Your task to perform on an android device: check storage Image 0: 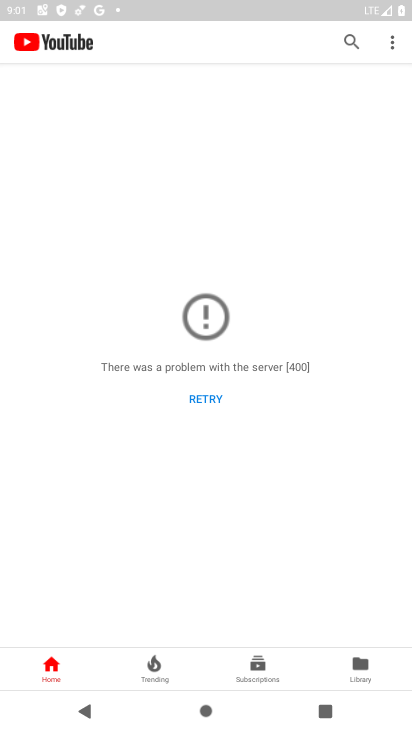
Step 0: press home button
Your task to perform on an android device: check storage Image 1: 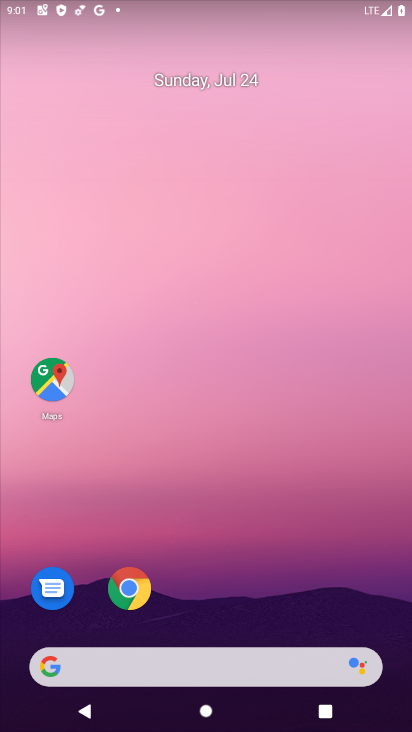
Step 1: drag from (227, 687) to (233, 242)
Your task to perform on an android device: check storage Image 2: 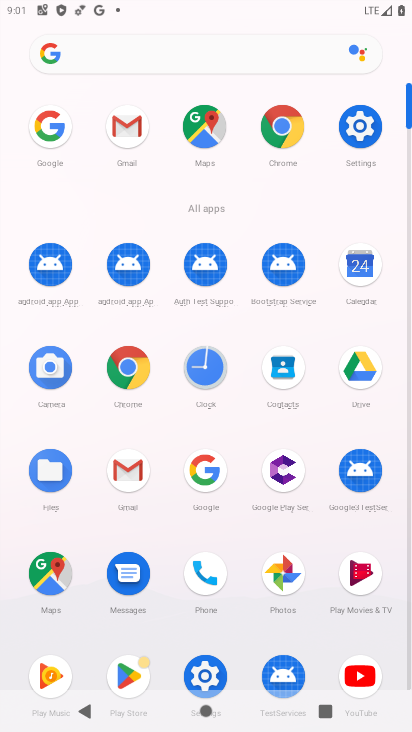
Step 2: click (366, 144)
Your task to perform on an android device: check storage Image 3: 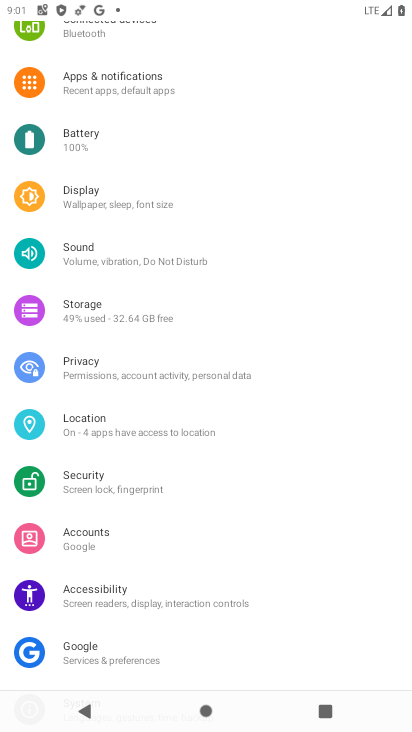
Step 3: click (92, 308)
Your task to perform on an android device: check storage Image 4: 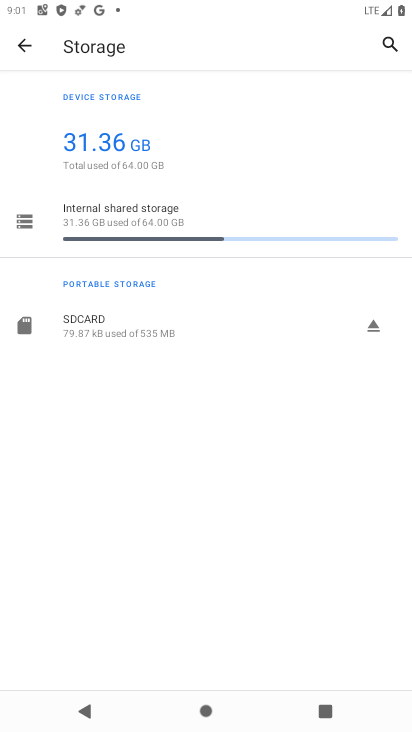
Step 4: task complete